Your task to perform on an android device: open chrome and create a bookmark for the current page Image 0: 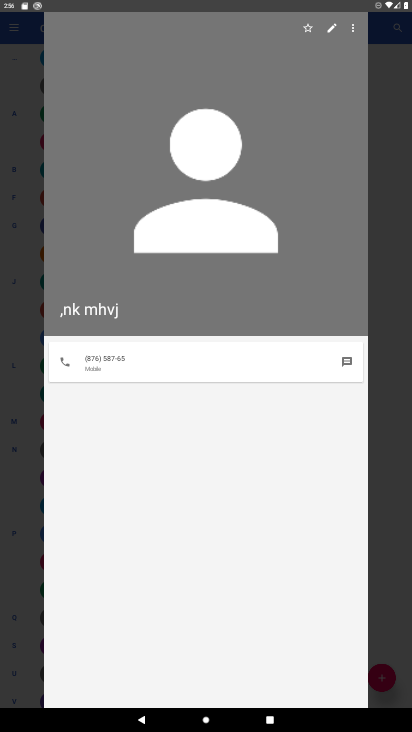
Step 0: press home button
Your task to perform on an android device: open chrome and create a bookmark for the current page Image 1: 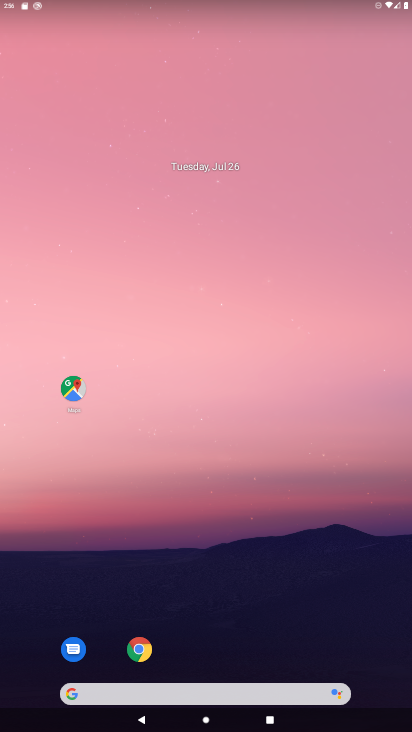
Step 1: click (150, 628)
Your task to perform on an android device: open chrome and create a bookmark for the current page Image 2: 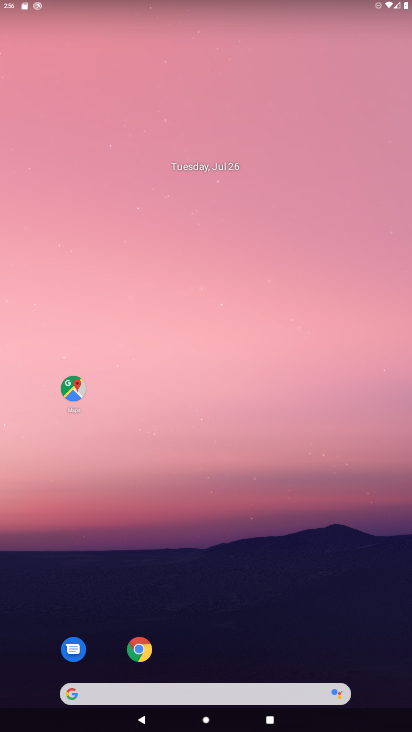
Step 2: click (137, 646)
Your task to perform on an android device: open chrome and create a bookmark for the current page Image 3: 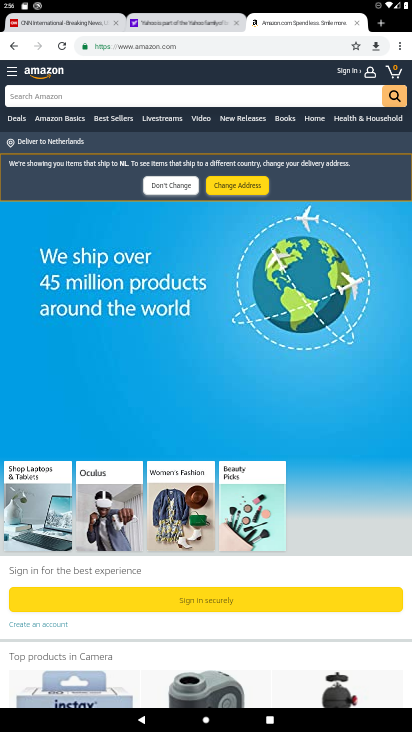
Step 3: click (405, 45)
Your task to perform on an android device: open chrome and create a bookmark for the current page Image 4: 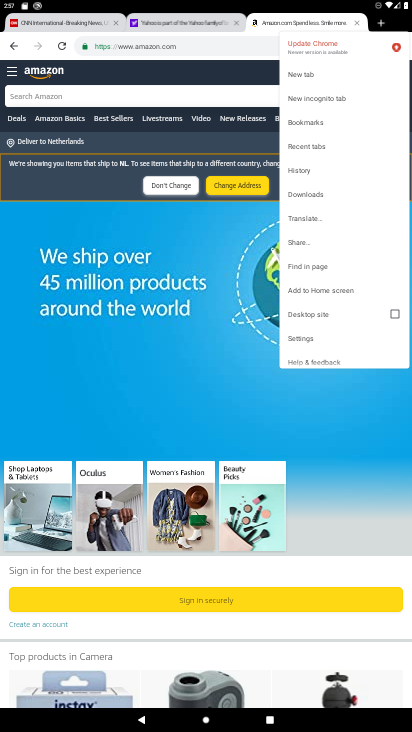
Step 4: click (217, 134)
Your task to perform on an android device: open chrome and create a bookmark for the current page Image 5: 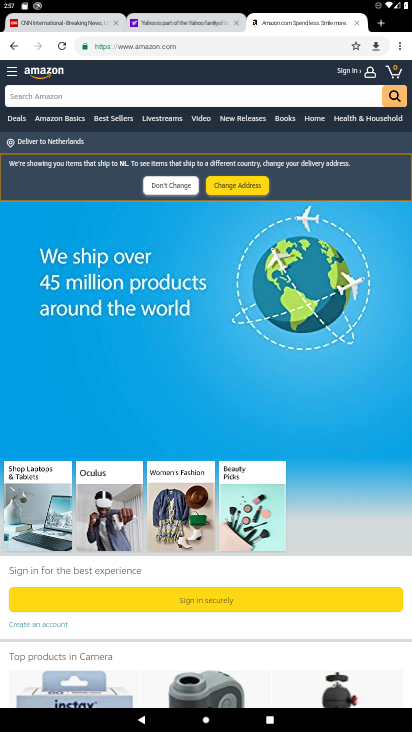
Step 5: click (356, 48)
Your task to perform on an android device: open chrome and create a bookmark for the current page Image 6: 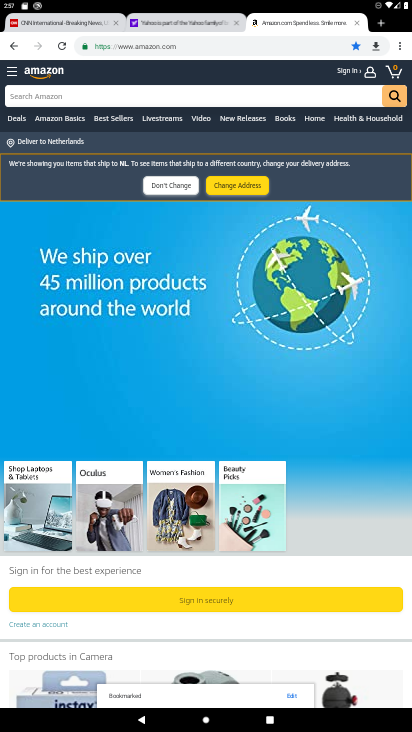
Step 6: task complete